Your task to perform on an android device: Open location settings Image 0: 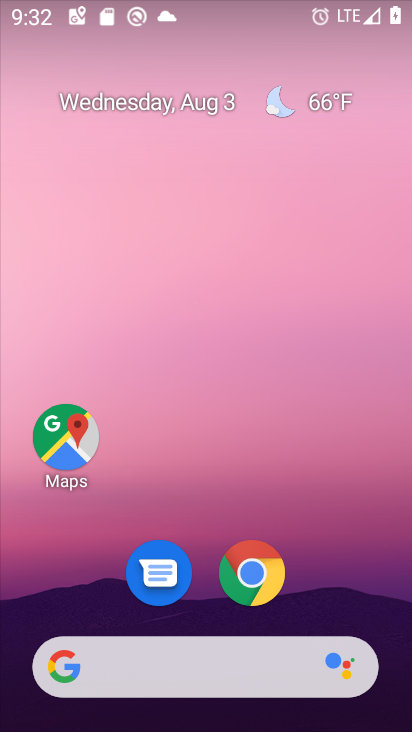
Step 0: drag from (354, 608) to (317, 17)
Your task to perform on an android device: Open location settings Image 1: 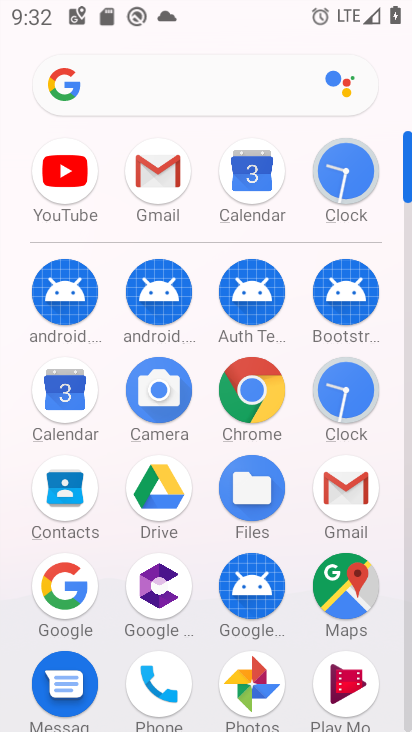
Step 1: drag from (411, 469) to (404, 422)
Your task to perform on an android device: Open location settings Image 2: 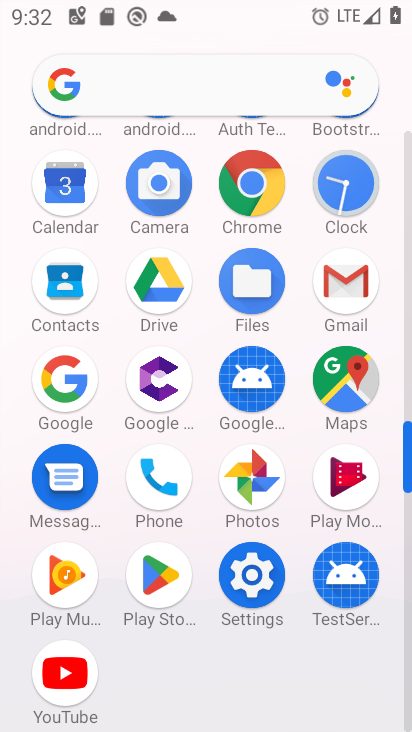
Step 2: click (251, 570)
Your task to perform on an android device: Open location settings Image 3: 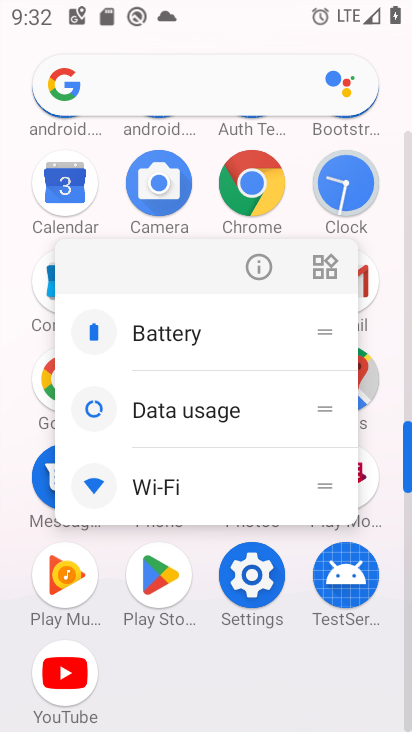
Step 3: click (251, 570)
Your task to perform on an android device: Open location settings Image 4: 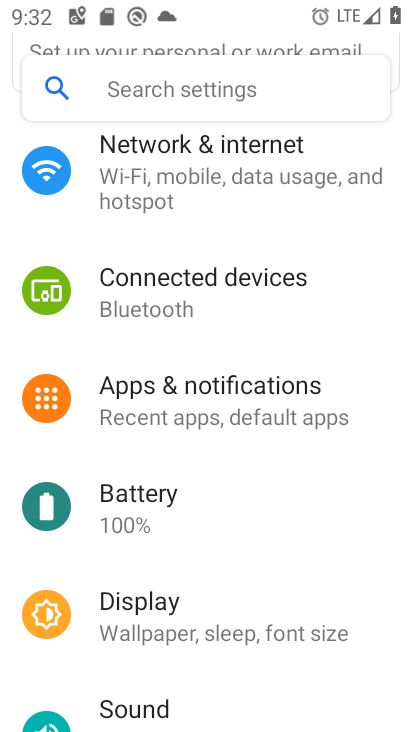
Step 4: drag from (358, 557) to (356, 175)
Your task to perform on an android device: Open location settings Image 5: 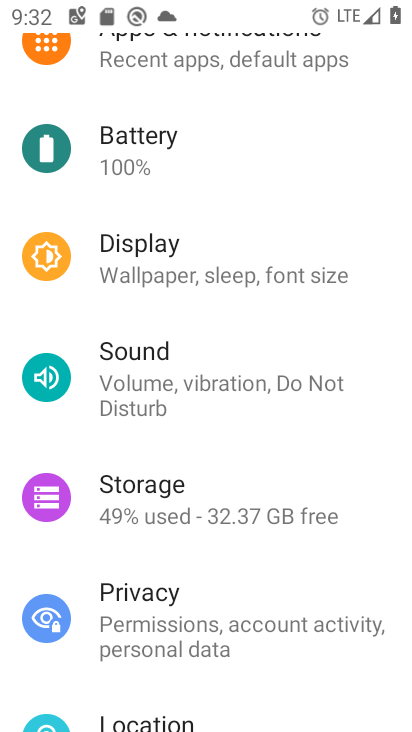
Step 5: drag from (316, 589) to (317, 321)
Your task to perform on an android device: Open location settings Image 6: 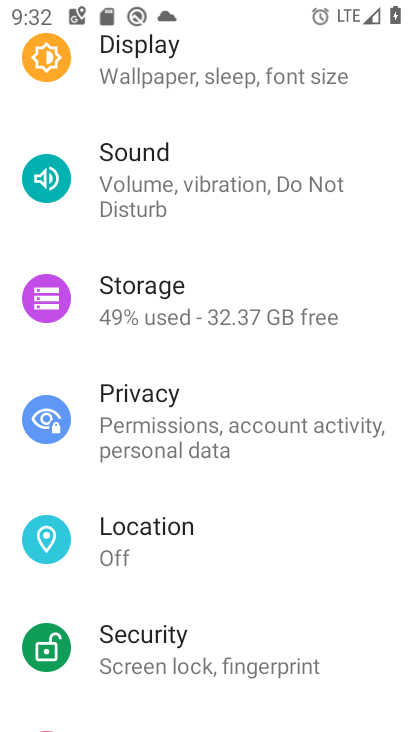
Step 6: click (158, 526)
Your task to perform on an android device: Open location settings Image 7: 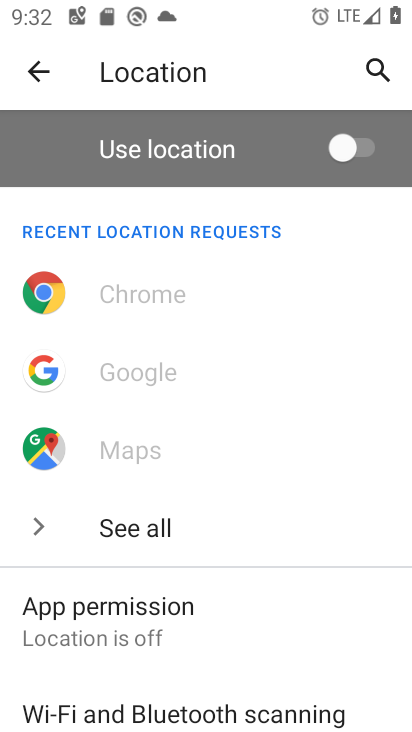
Step 7: task complete